Your task to perform on an android device: Open Yahoo.com Image 0: 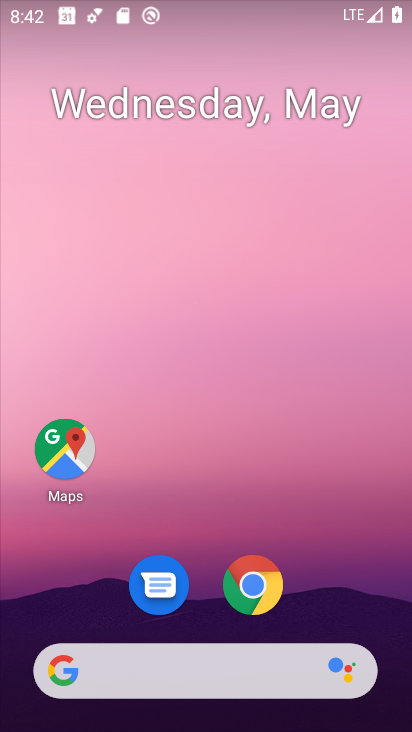
Step 0: click (251, 686)
Your task to perform on an android device: Open Yahoo.com Image 1: 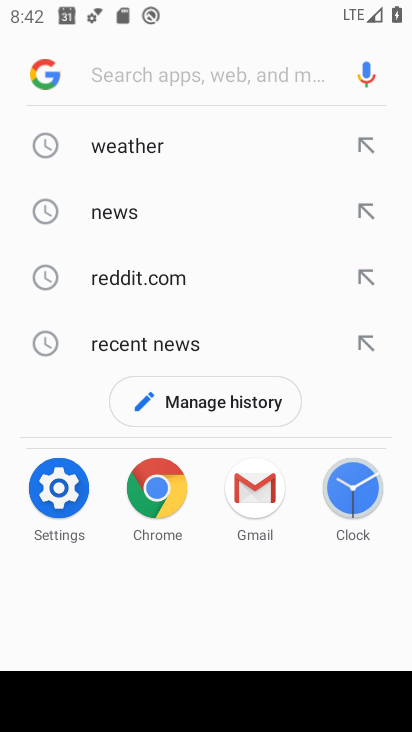
Step 1: type "yahoo.com"
Your task to perform on an android device: Open Yahoo.com Image 2: 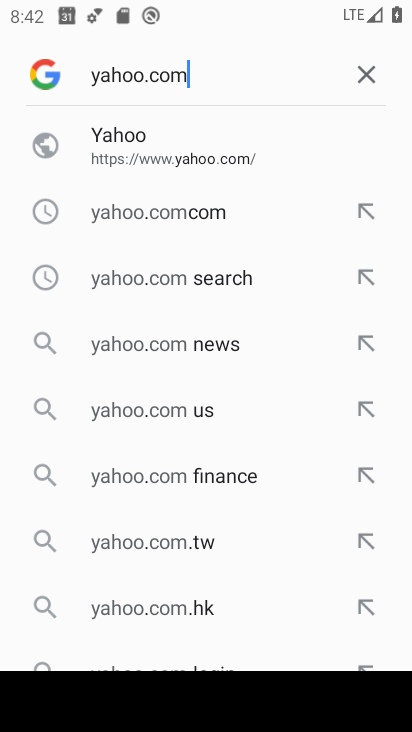
Step 2: click (84, 147)
Your task to perform on an android device: Open Yahoo.com Image 3: 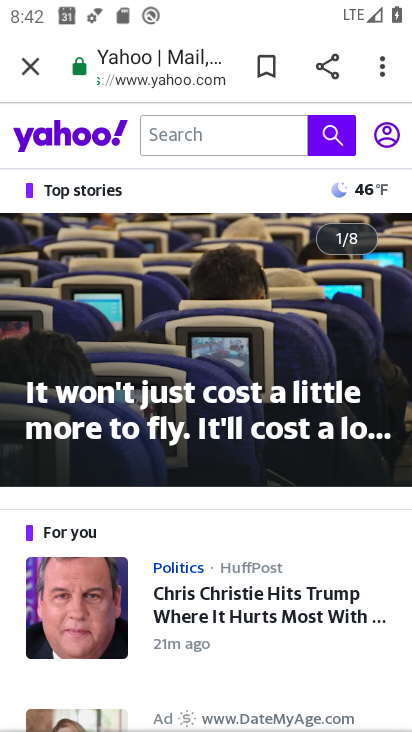
Step 3: task complete